Your task to perform on an android device: Open Google Image 0: 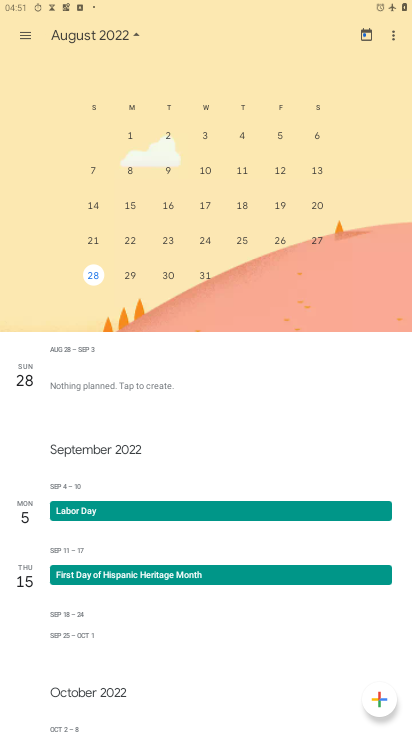
Step 0: press home button
Your task to perform on an android device: Open Google Image 1: 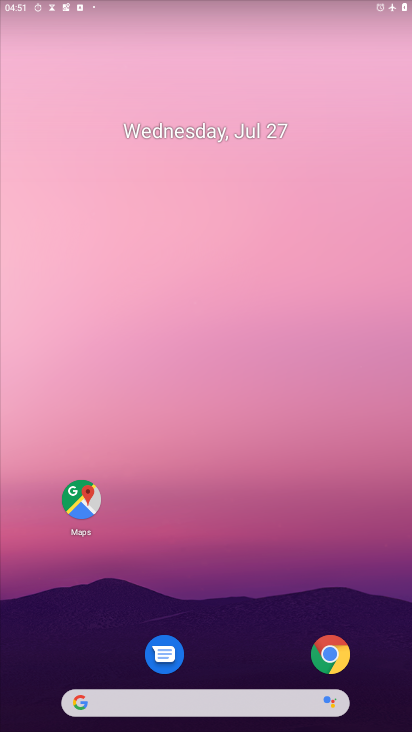
Step 1: drag from (283, 711) to (300, 116)
Your task to perform on an android device: Open Google Image 2: 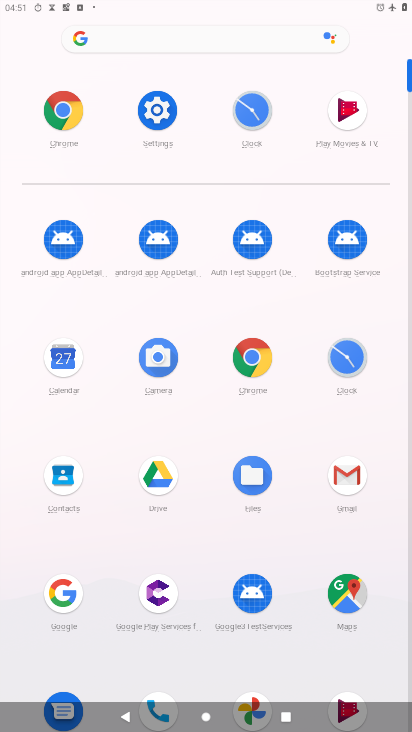
Step 2: click (245, 359)
Your task to perform on an android device: Open Google Image 3: 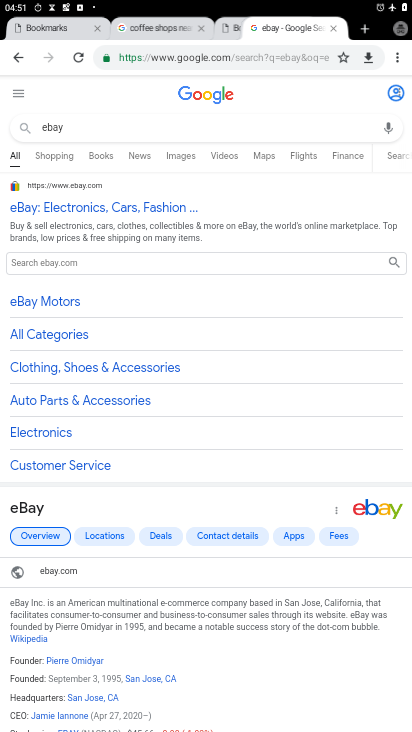
Step 3: task complete